Your task to perform on an android device: Do I have any events this weekend? Image 0: 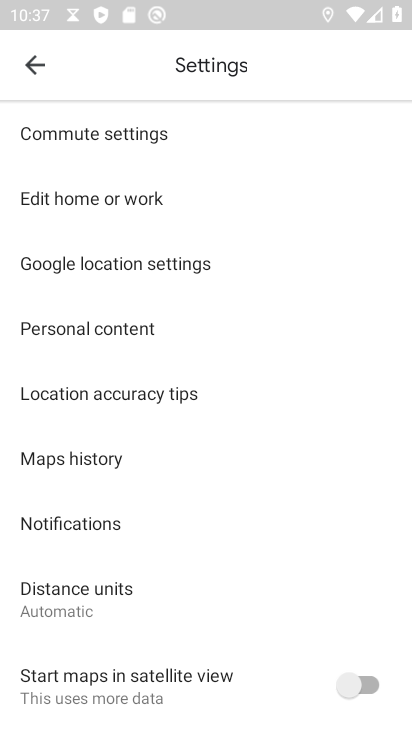
Step 0: press back button
Your task to perform on an android device: Do I have any events this weekend? Image 1: 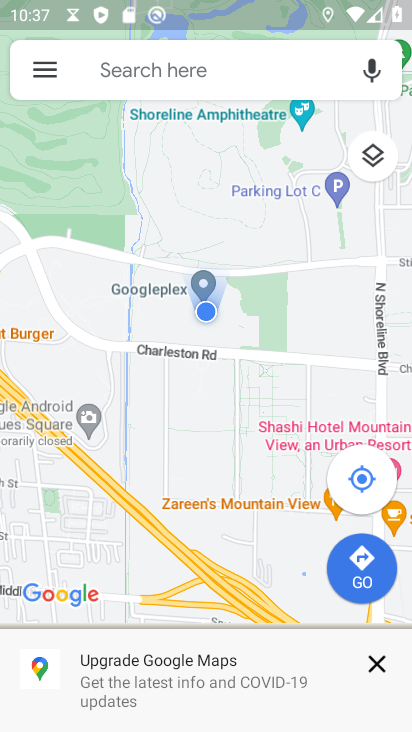
Step 1: press home button
Your task to perform on an android device: Do I have any events this weekend? Image 2: 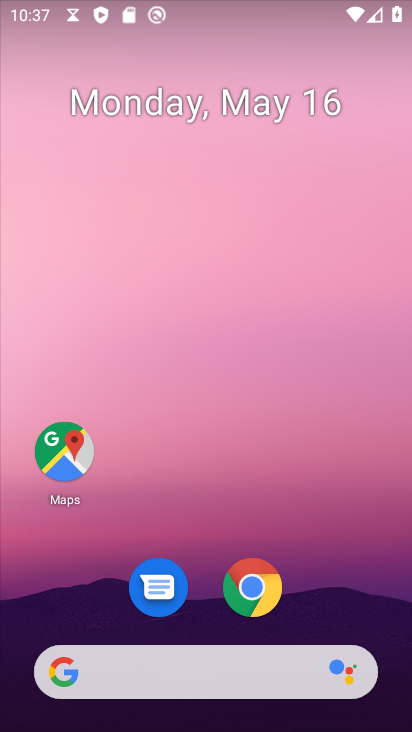
Step 2: drag from (283, 542) to (200, 28)
Your task to perform on an android device: Do I have any events this weekend? Image 3: 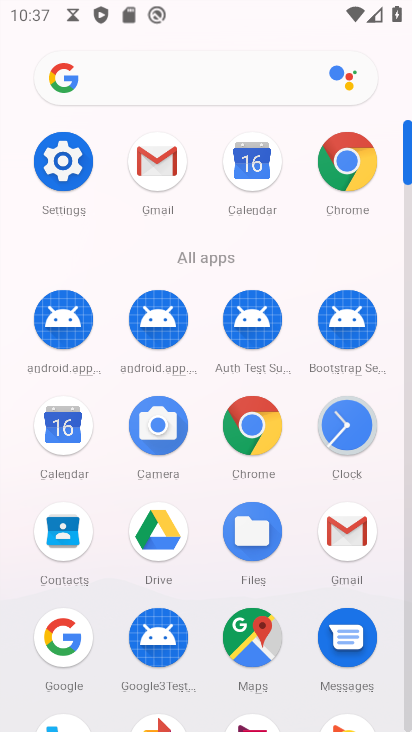
Step 3: drag from (11, 518) to (19, 155)
Your task to perform on an android device: Do I have any events this weekend? Image 4: 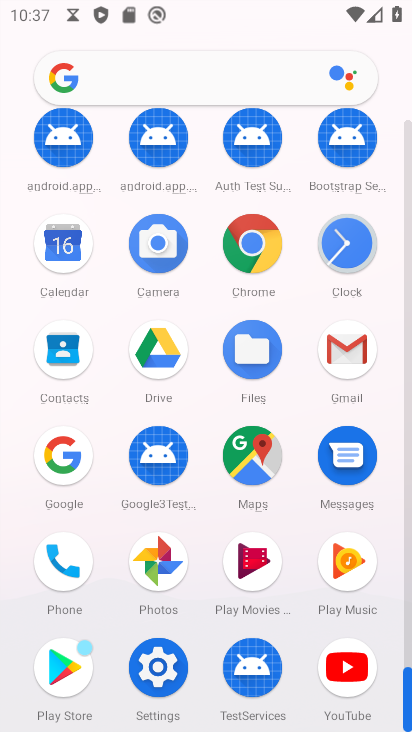
Step 4: drag from (16, 496) to (26, 139)
Your task to perform on an android device: Do I have any events this weekend? Image 5: 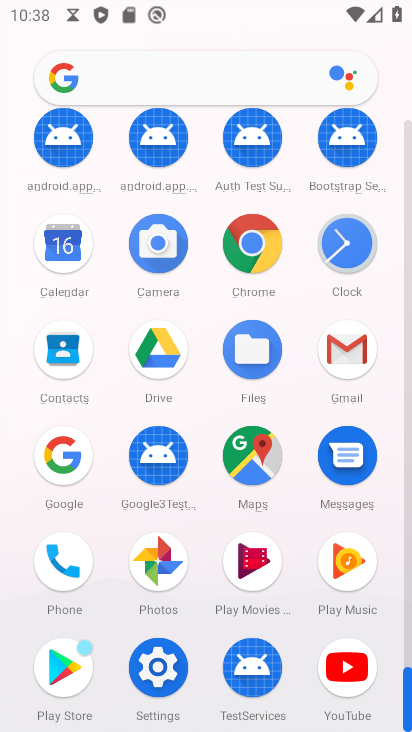
Step 5: drag from (19, 590) to (8, 303)
Your task to perform on an android device: Do I have any events this weekend? Image 6: 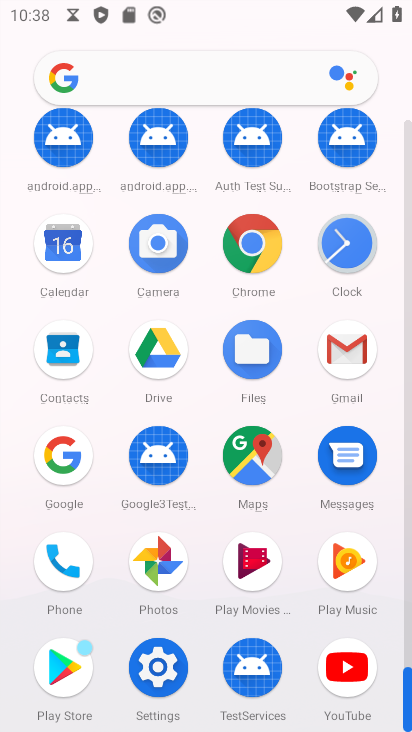
Step 6: click (55, 243)
Your task to perform on an android device: Do I have any events this weekend? Image 7: 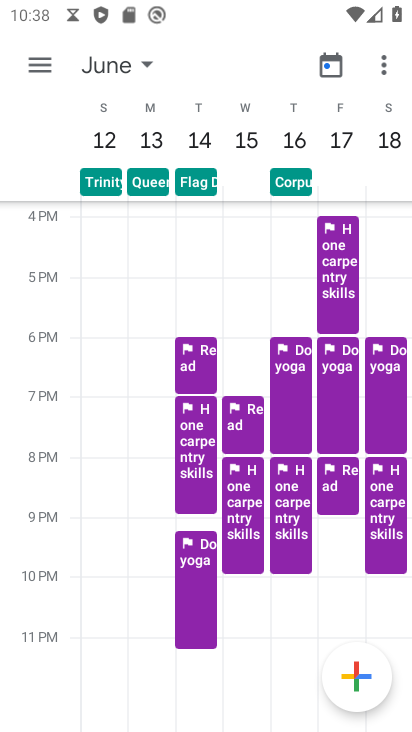
Step 7: click (333, 59)
Your task to perform on an android device: Do I have any events this weekend? Image 8: 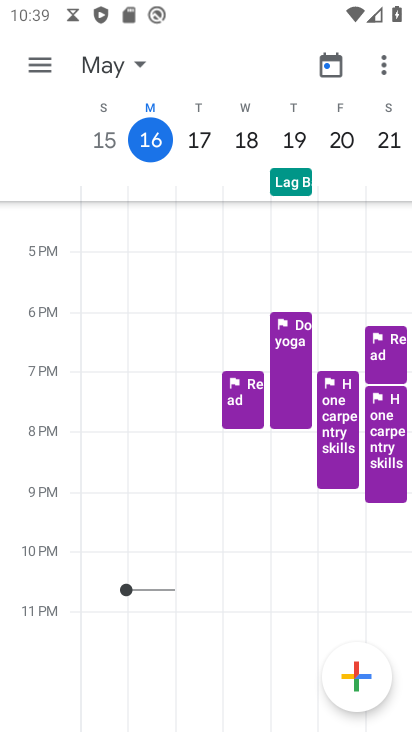
Step 8: click (384, 128)
Your task to perform on an android device: Do I have any events this weekend? Image 9: 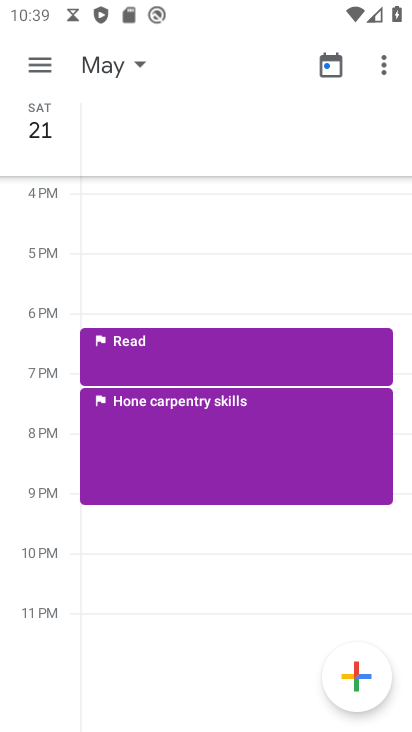
Step 9: task complete